Your task to perform on an android device: Open accessibility settings Image 0: 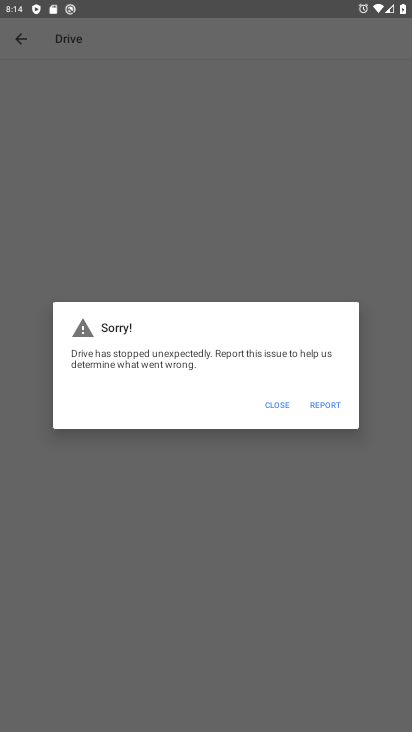
Step 0: press home button
Your task to perform on an android device: Open accessibility settings Image 1: 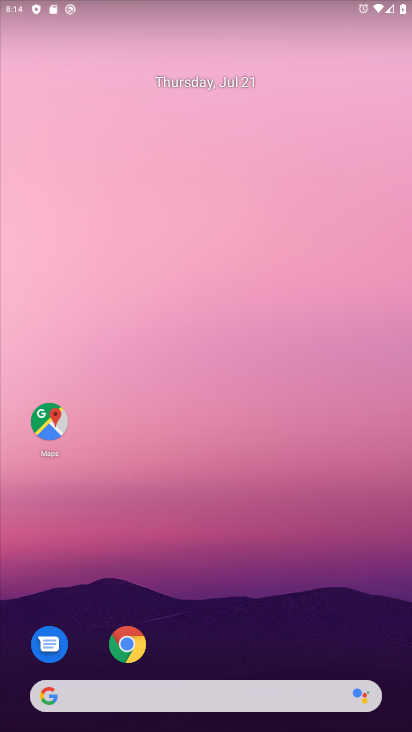
Step 1: drag from (352, 581) to (345, 165)
Your task to perform on an android device: Open accessibility settings Image 2: 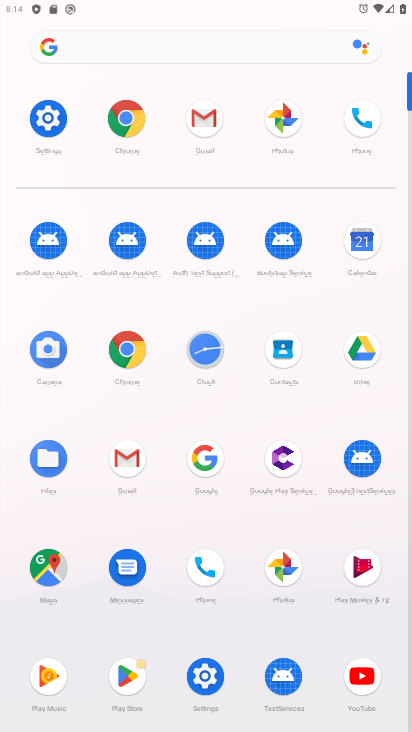
Step 2: click (47, 125)
Your task to perform on an android device: Open accessibility settings Image 3: 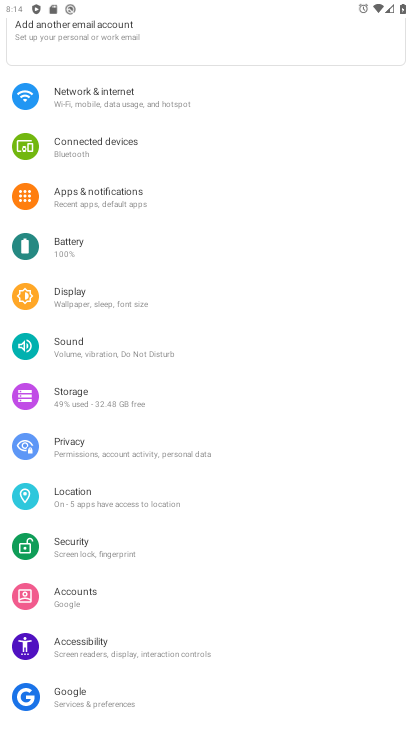
Step 3: drag from (304, 199) to (315, 243)
Your task to perform on an android device: Open accessibility settings Image 4: 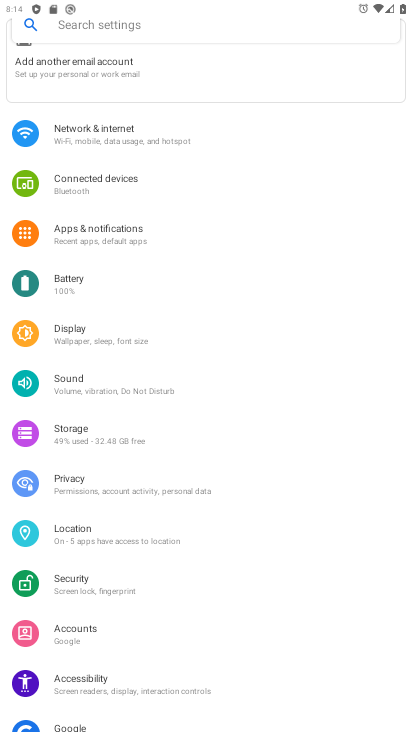
Step 4: drag from (306, 172) to (309, 243)
Your task to perform on an android device: Open accessibility settings Image 5: 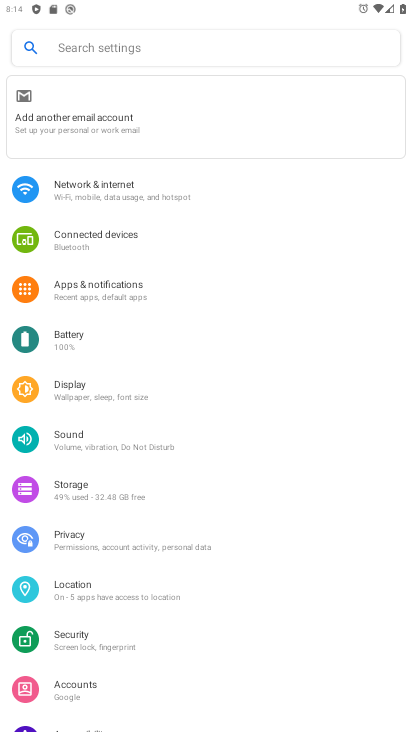
Step 5: drag from (307, 182) to (315, 292)
Your task to perform on an android device: Open accessibility settings Image 6: 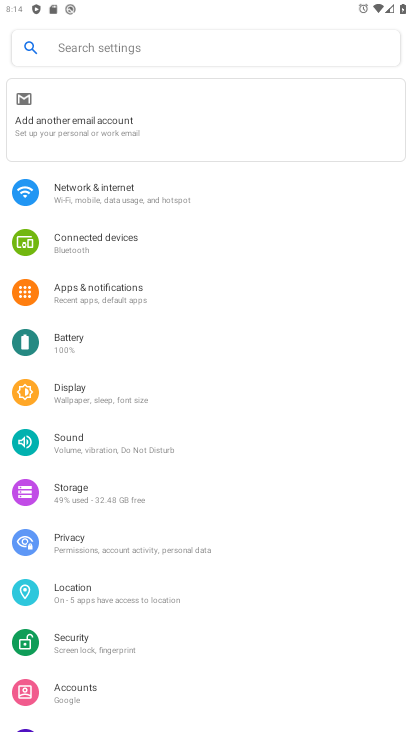
Step 6: drag from (311, 347) to (309, 303)
Your task to perform on an android device: Open accessibility settings Image 7: 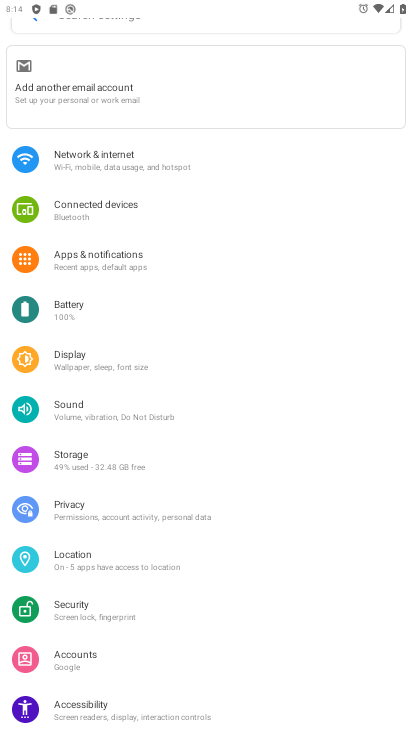
Step 7: drag from (298, 368) to (296, 324)
Your task to perform on an android device: Open accessibility settings Image 8: 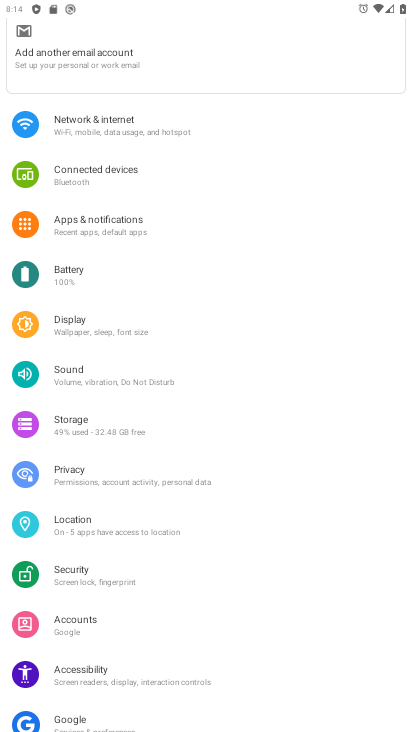
Step 8: drag from (292, 381) to (294, 333)
Your task to perform on an android device: Open accessibility settings Image 9: 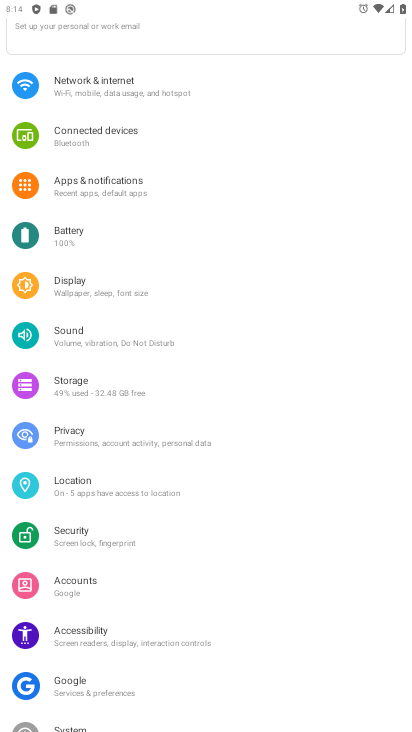
Step 9: drag from (288, 399) to (285, 329)
Your task to perform on an android device: Open accessibility settings Image 10: 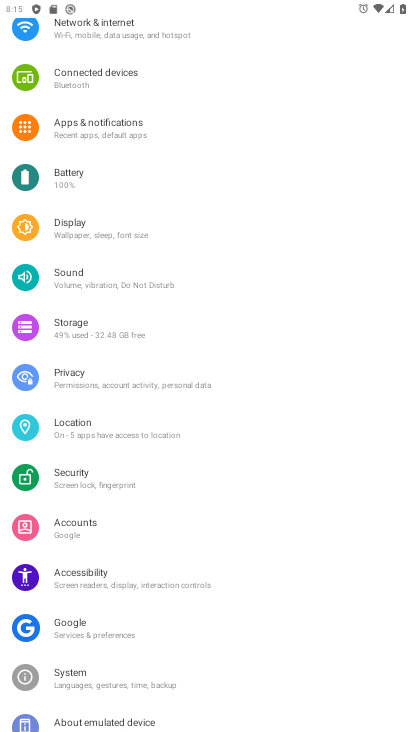
Step 10: drag from (284, 371) to (288, 308)
Your task to perform on an android device: Open accessibility settings Image 11: 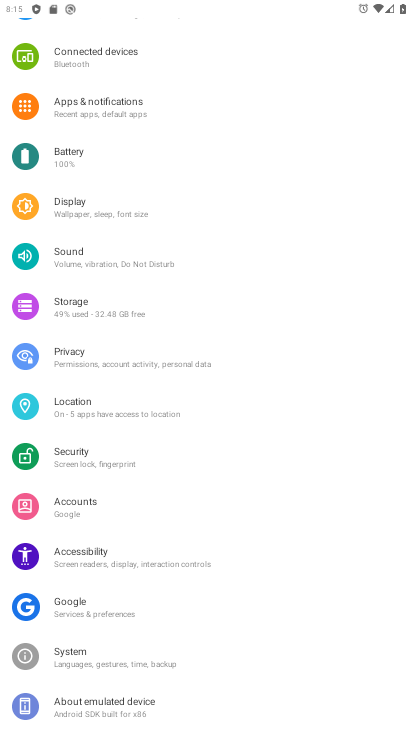
Step 11: click (135, 552)
Your task to perform on an android device: Open accessibility settings Image 12: 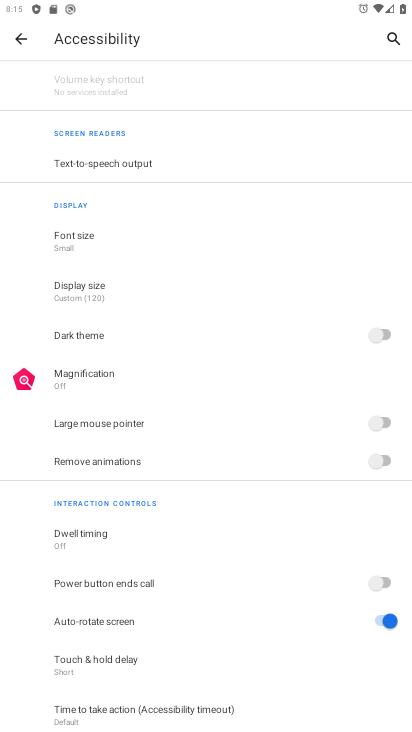
Step 12: task complete